Your task to perform on an android device: uninstall "PlayWell" Image 0: 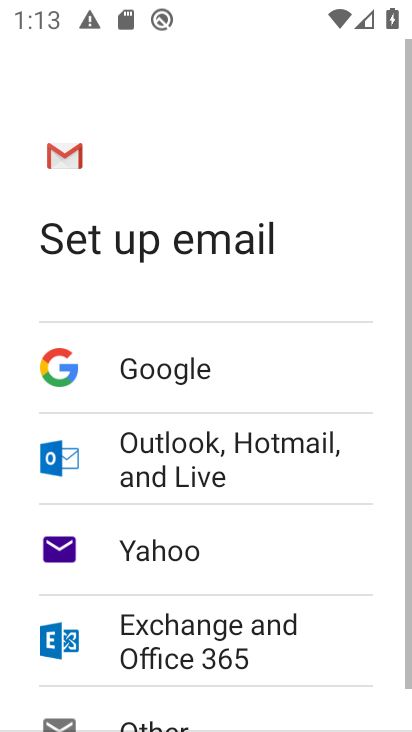
Step 0: press home button
Your task to perform on an android device: uninstall "PlayWell" Image 1: 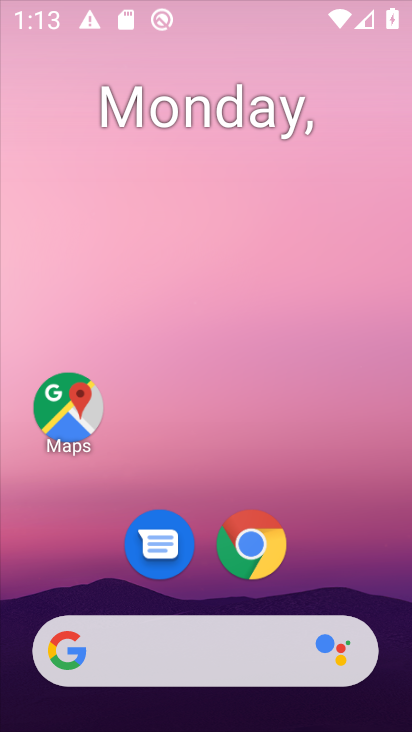
Step 1: drag from (384, 607) to (10, 392)
Your task to perform on an android device: uninstall "PlayWell" Image 2: 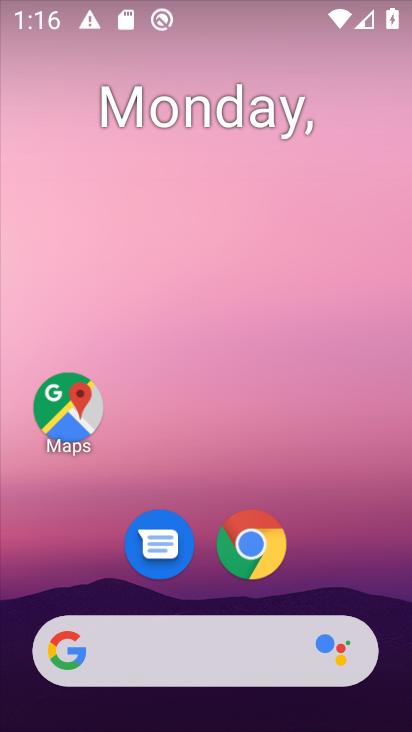
Step 2: drag from (372, 540) to (264, 16)
Your task to perform on an android device: uninstall "PlayWell" Image 3: 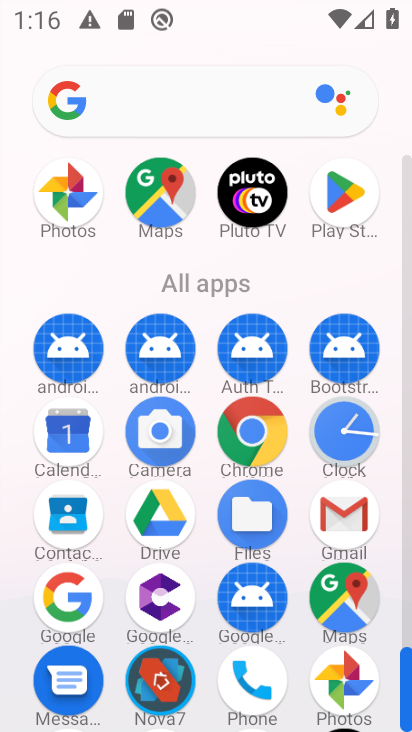
Step 3: click (333, 195)
Your task to perform on an android device: uninstall "PlayWell" Image 4: 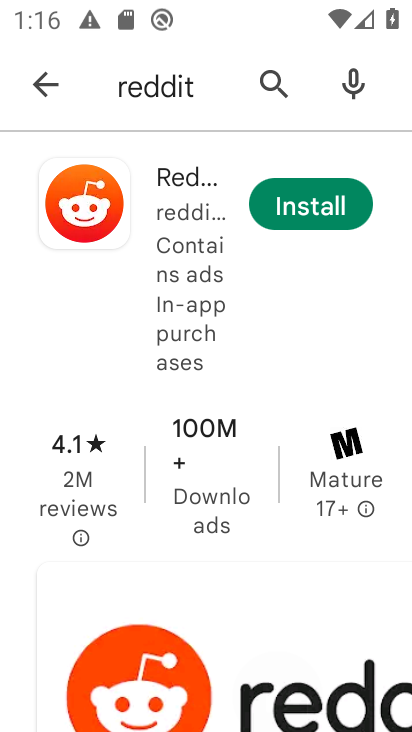
Step 4: press back button
Your task to perform on an android device: uninstall "PlayWell" Image 5: 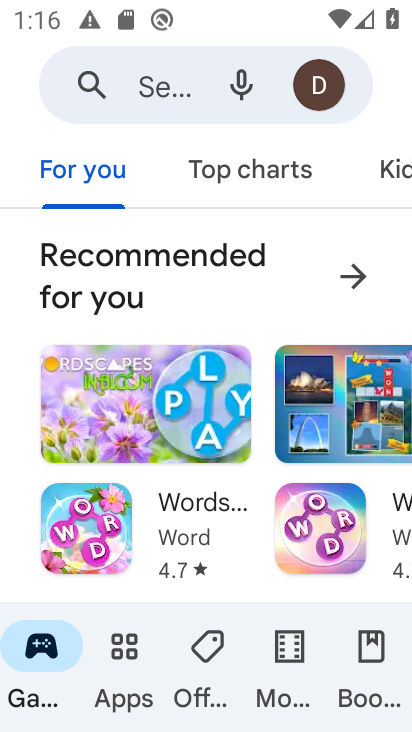
Step 5: click (146, 79)
Your task to perform on an android device: uninstall "PlayWell" Image 6: 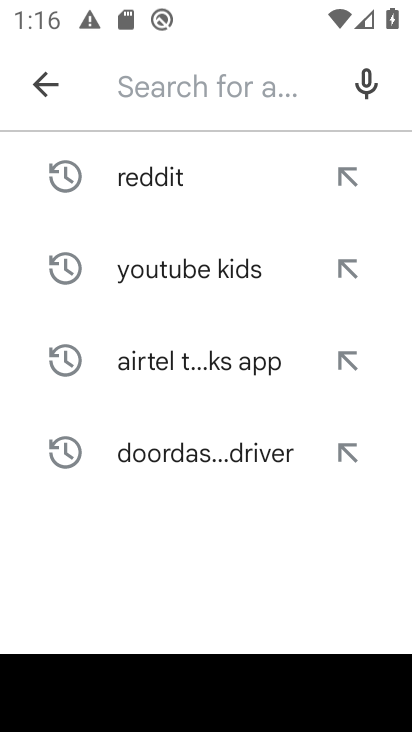
Step 6: type "PlayWell"
Your task to perform on an android device: uninstall "PlayWell" Image 7: 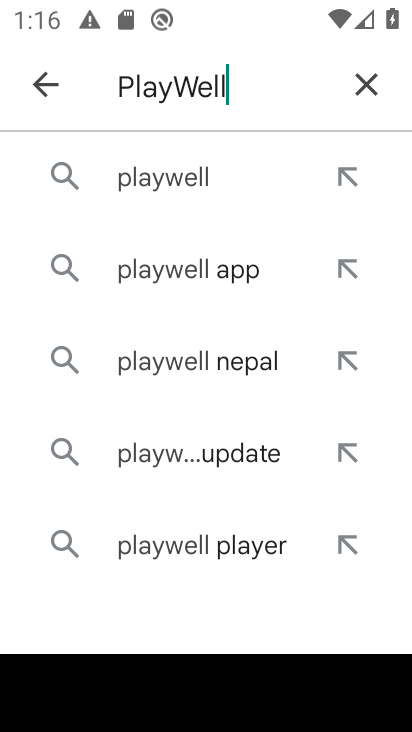
Step 7: click (196, 187)
Your task to perform on an android device: uninstall "PlayWell" Image 8: 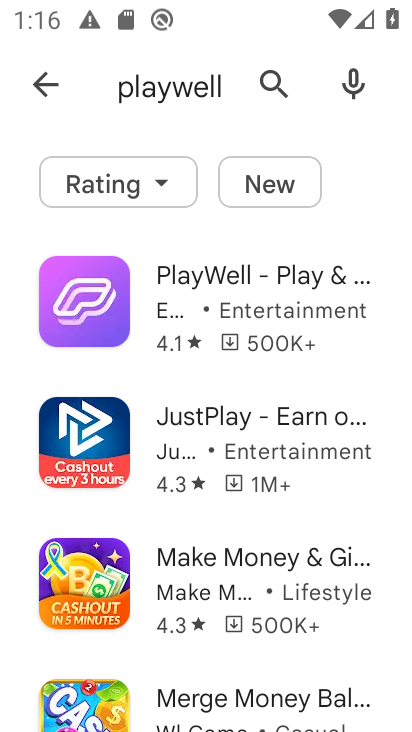
Step 8: task complete